Your task to perform on an android device: change keyboard looks Image 0: 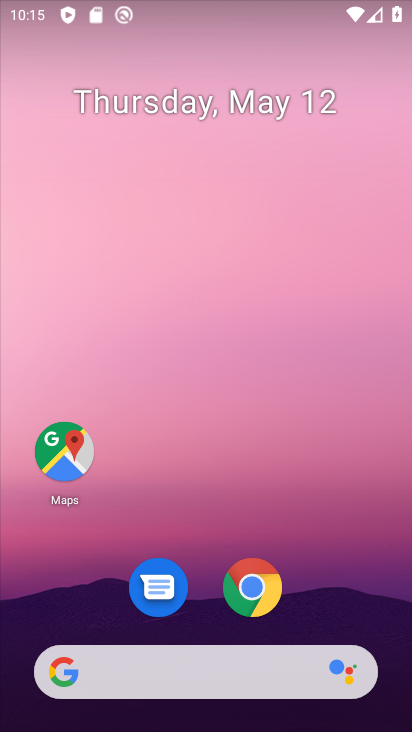
Step 0: drag from (328, 596) to (55, 395)
Your task to perform on an android device: change keyboard looks Image 1: 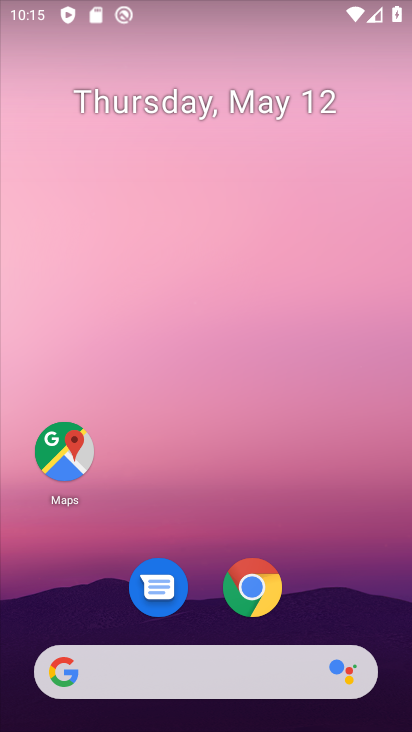
Step 1: drag from (398, 545) to (411, 190)
Your task to perform on an android device: change keyboard looks Image 2: 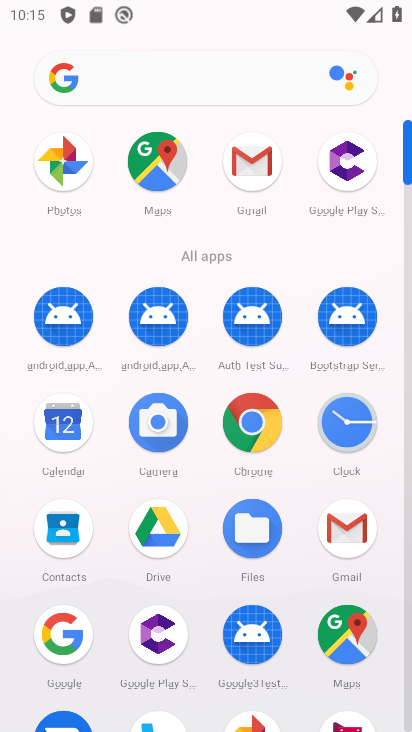
Step 2: drag from (402, 425) to (360, 83)
Your task to perform on an android device: change keyboard looks Image 3: 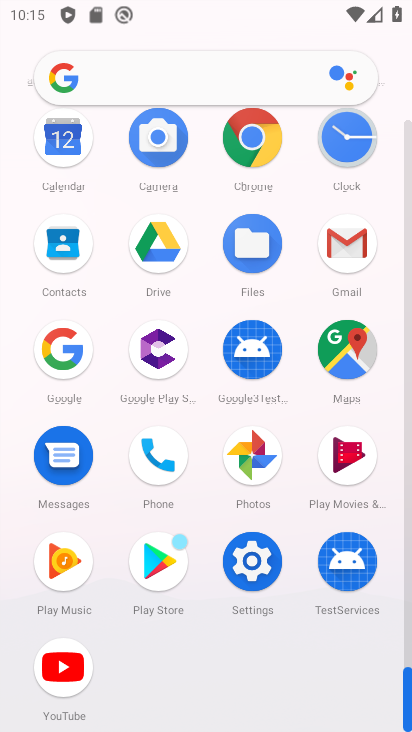
Step 3: click (258, 576)
Your task to perform on an android device: change keyboard looks Image 4: 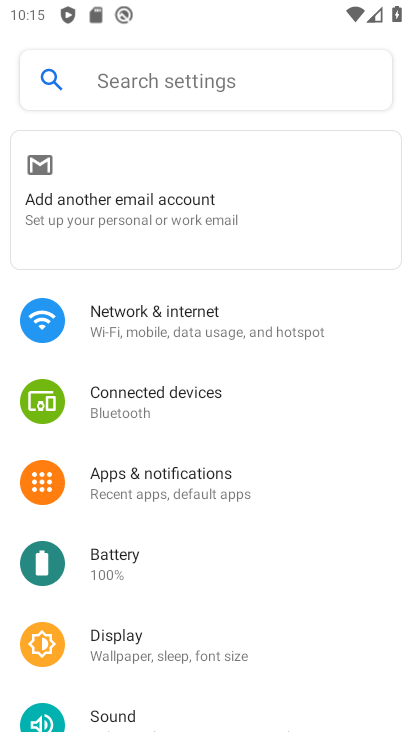
Step 4: drag from (232, 586) to (178, 5)
Your task to perform on an android device: change keyboard looks Image 5: 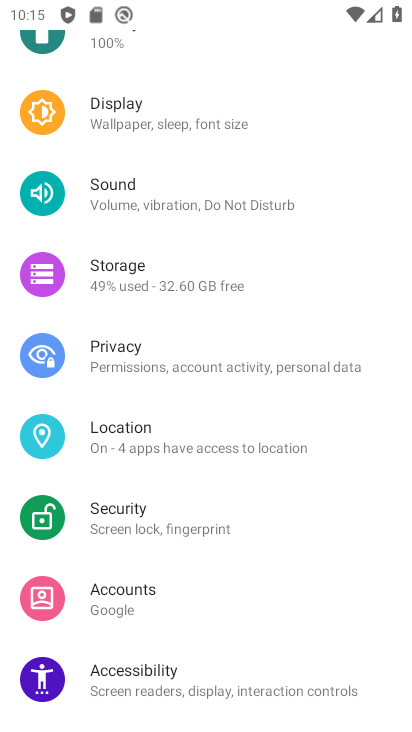
Step 5: drag from (130, 664) to (106, 81)
Your task to perform on an android device: change keyboard looks Image 6: 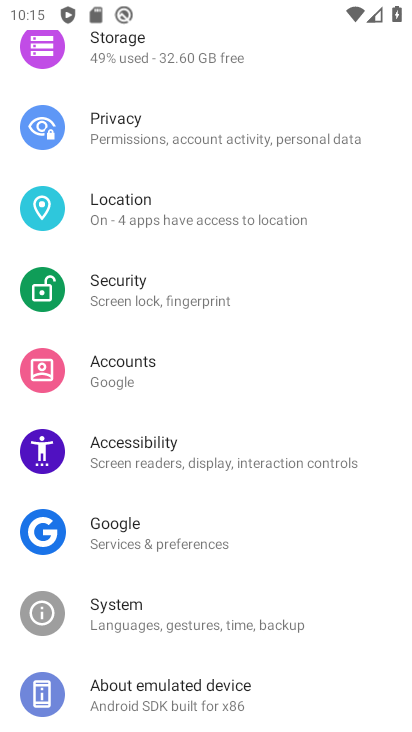
Step 6: click (139, 610)
Your task to perform on an android device: change keyboard looks Image 7: 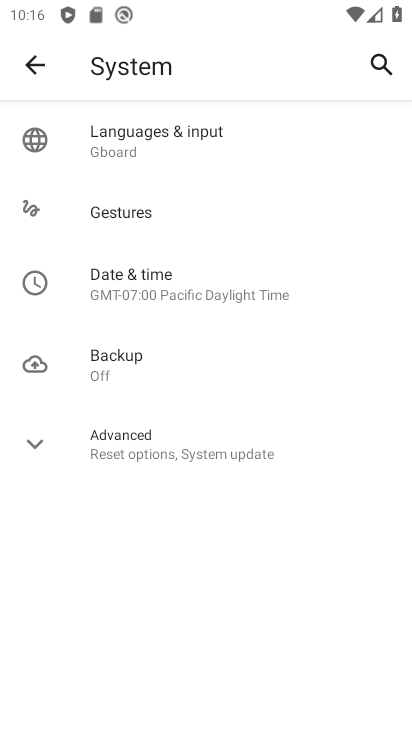
Step 7: click (114, 150)
Your task to perform on an android device: change keyboard looks Image 8: 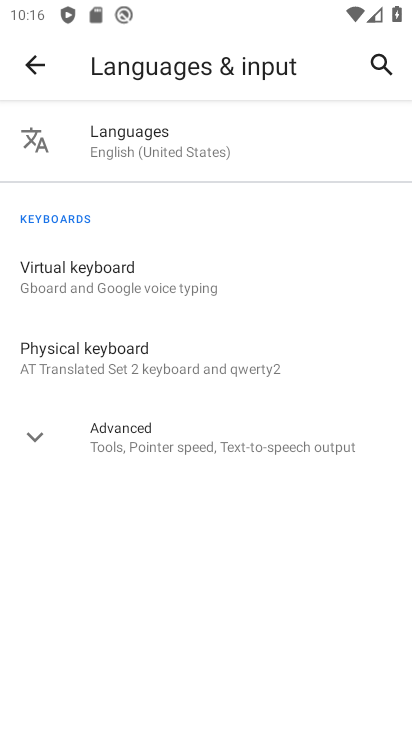
Step 8: click (59, 298)
Your task to perform on an android device: change keyboard looks Image 9: 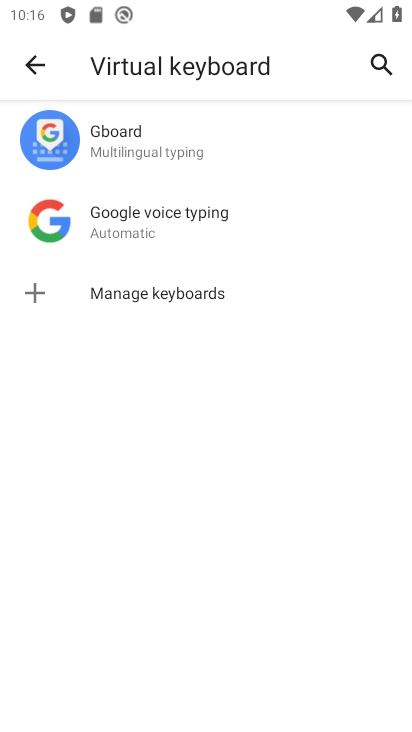
Step 9: click (94, 130)
Your task to perform on an android device: change keyboard looks Image 10: 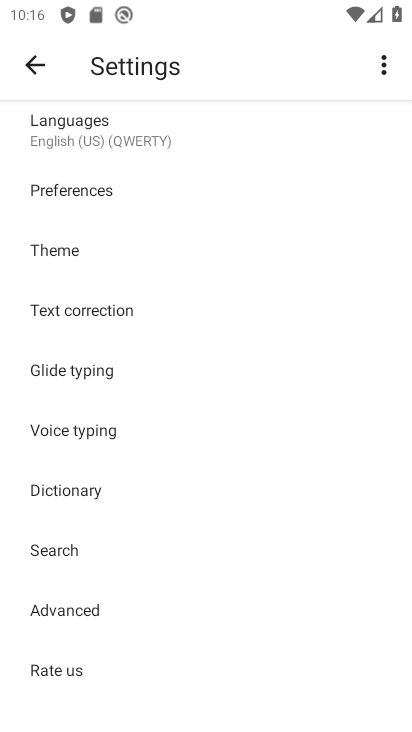
Step 10: click (57, 245)
Your task to perform on an android device: change keyboard looks Image 11: 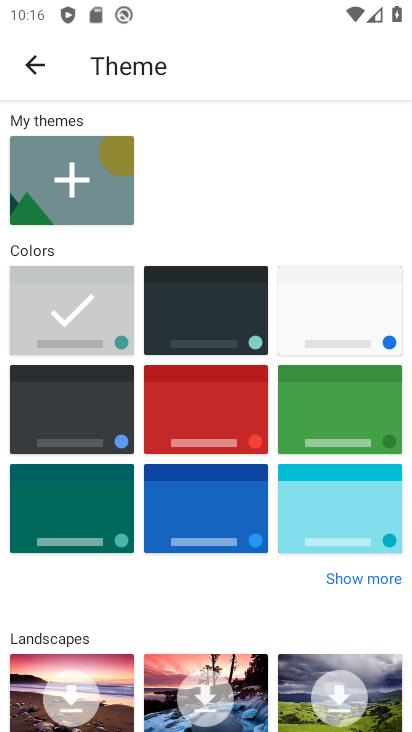
Step 11: click (202, 333)
Your task to perform on an android device: change keyboard looks Image 12: 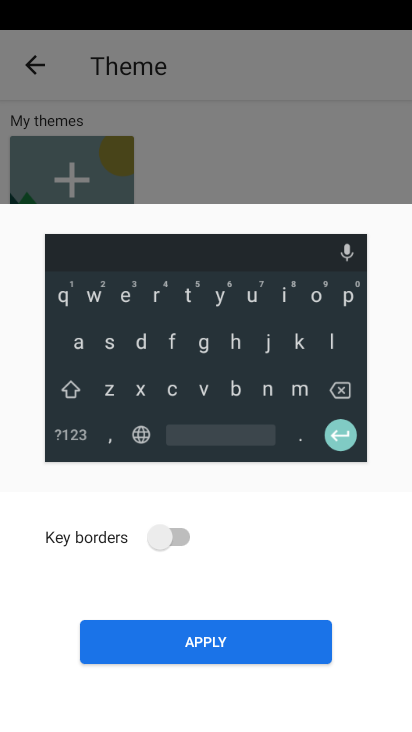
Step 12: click (170, 637)
Your task to perform on an android device: change keyboard looks Image 13: 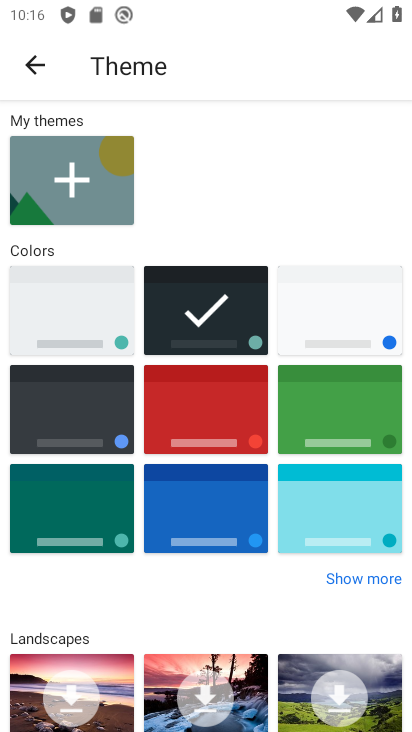
Step 13: task complete